Your task to perform on an android device: Open Google Chrome Image 0: 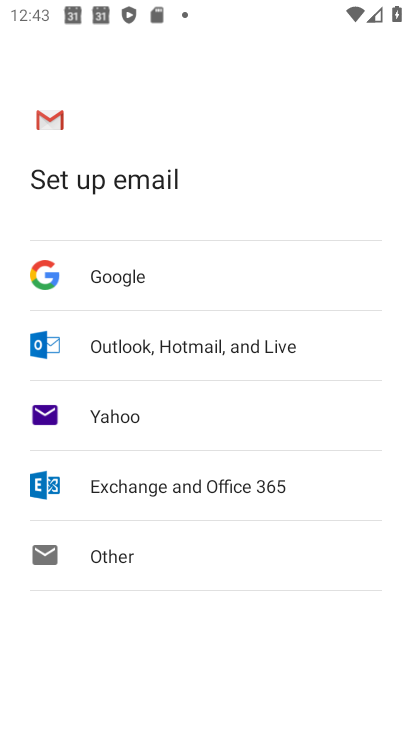
Step 0: press home button
Your task to perform on an android device: Open Google Chrome Image 1: 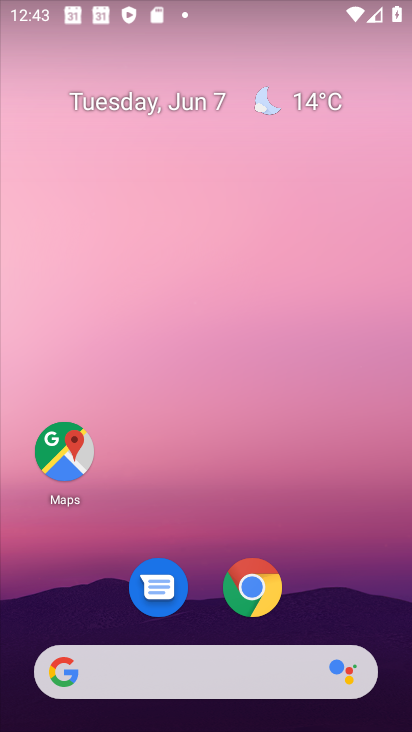
Step 1: drag from (239, 650) to (263, 104)
Your task to perform on an android device: Open Google Chrome Image 2: 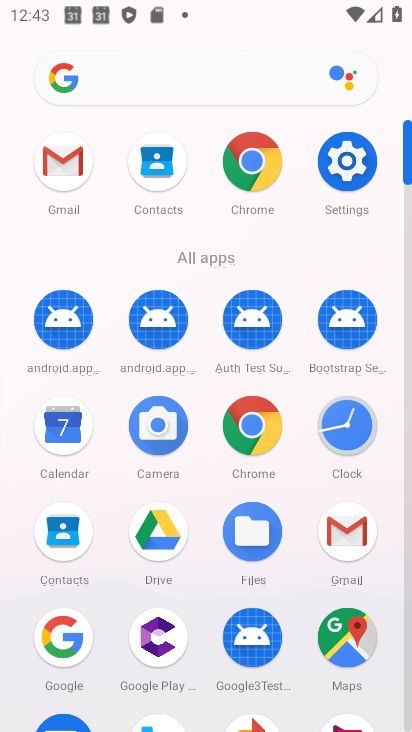
Step 2: click (274, 453)
Your task to perform on an android device: Open Google Chrome Image 3: 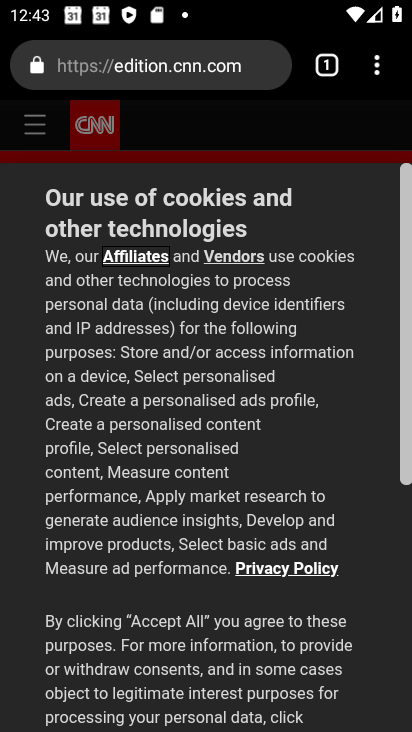
Step 3: task complete